Your task to perform on an android device: check battery use Image 0: 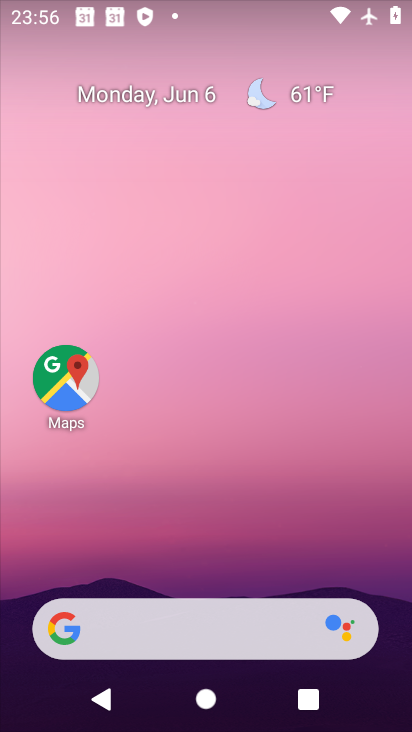
Step 0: drag from (232, 495) to (212, 111)
Your task to perform on an android device: check battery use Image 1: 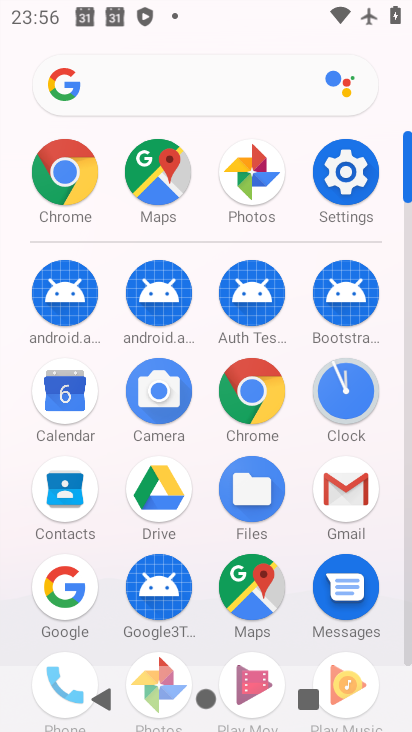
Step 1: click (355, 170)
Your task to perform on an android device: check battery use Image 2: 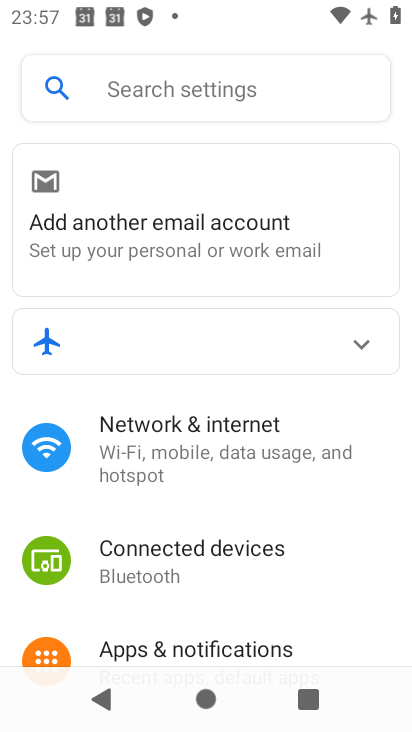
Step 2: drag from (239, 499) to (243, 129)
Your task to perform on an android device: check battery use Image 3: 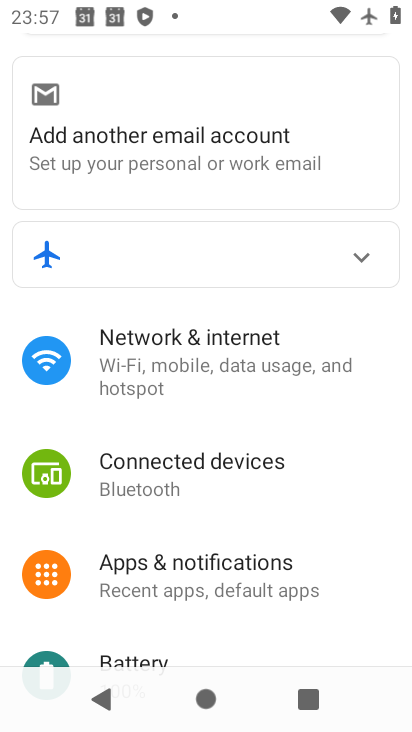
Step 3: drag from (209, 531) to (184, 90)
Your task to perform on an android device: check battery use Image 4: 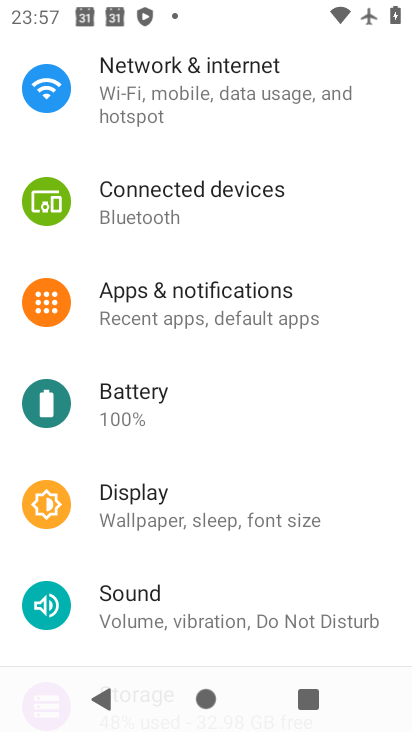
Step 4: click (158, 392)
Your task to perform on an android device: check battery use Image 5: 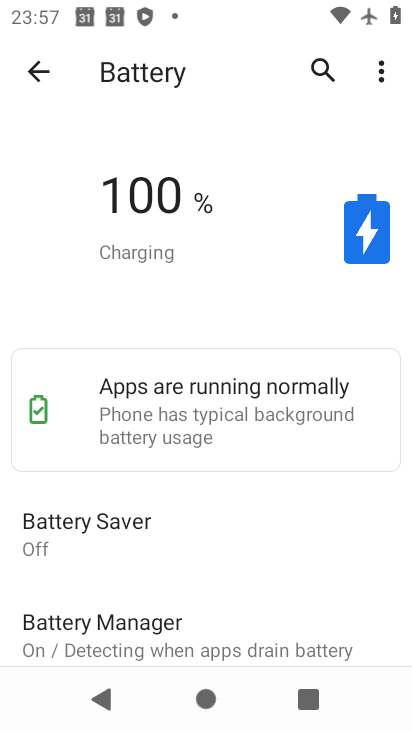
Step 5: click (376, 60)
Your task to perform on an android device: check battery use Image 6: 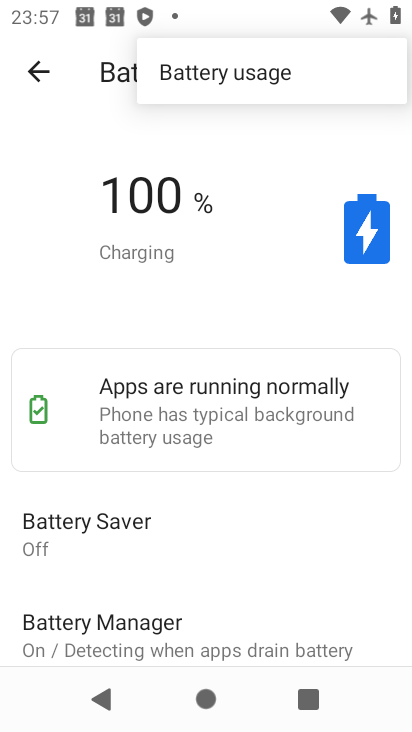
Step 6: click (257, 64)
Your task to perform on an android device: check battery use Image 7: 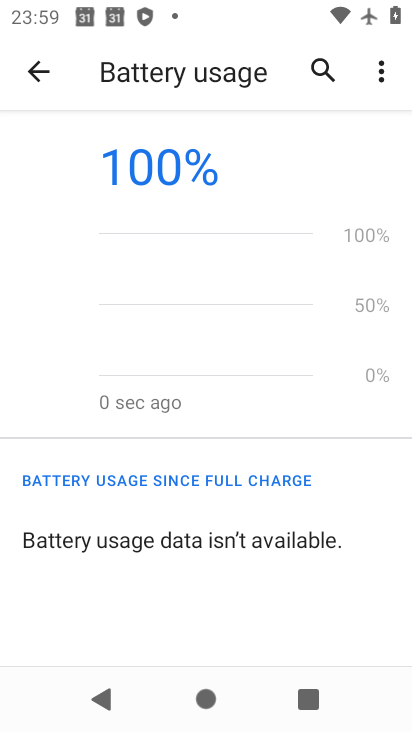
Step 7: task complete